Your task to perform on an android device: find snoozed emails in the gmail app Image 0: 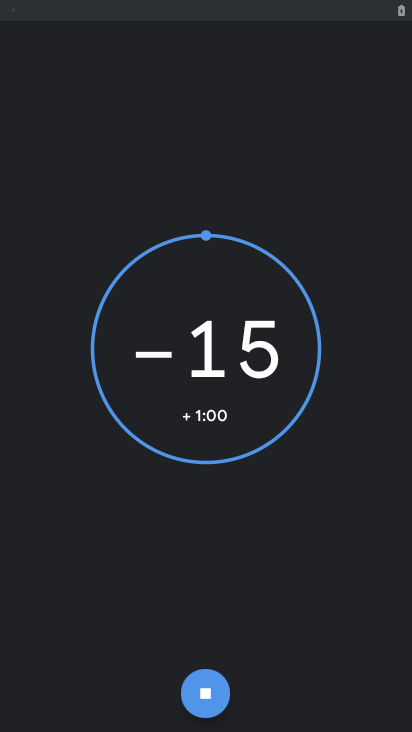
Step 0: click (211, 690)
Your task to perform on an android device: find snoozed emails in the gmail app Image 1: 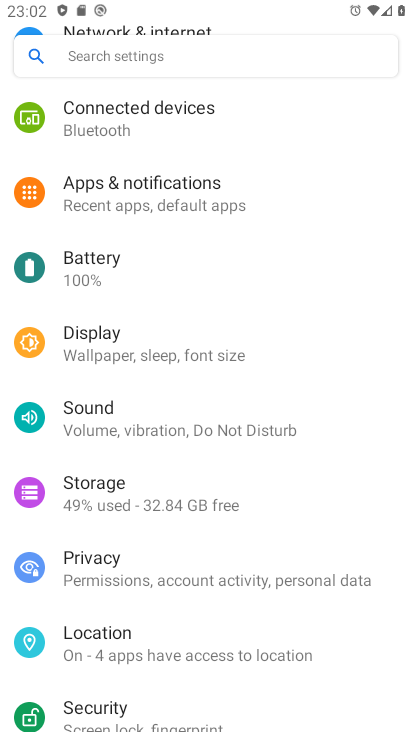
Step 1: press back button
Your task to perform on an android device: find snoozed emails in the gmail app Image 2: 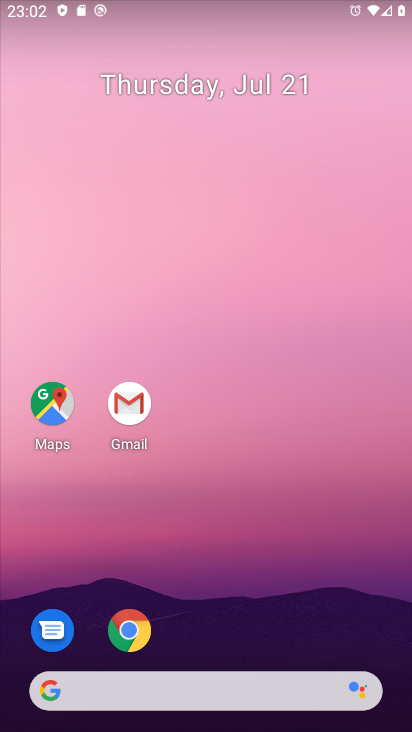
Step 2: drag from (218, 662) to (164, 121)
Your task to perform on an android device: find snoozed emails in the gmail app Image 3: 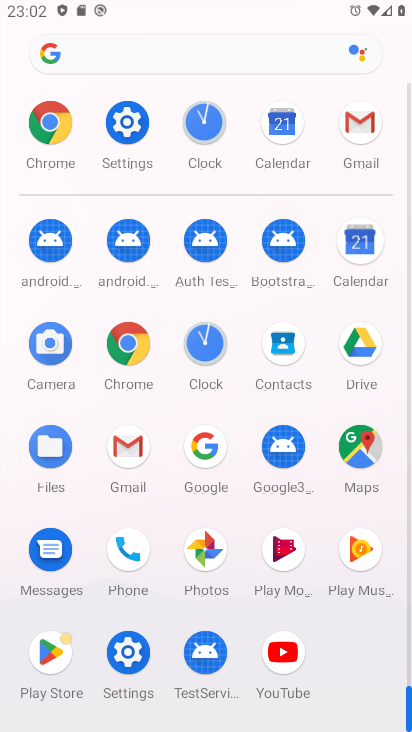
Step 3: click (133, 452)
Your task to perform on an android device: find snoozed emails in the gmail app Image 4: 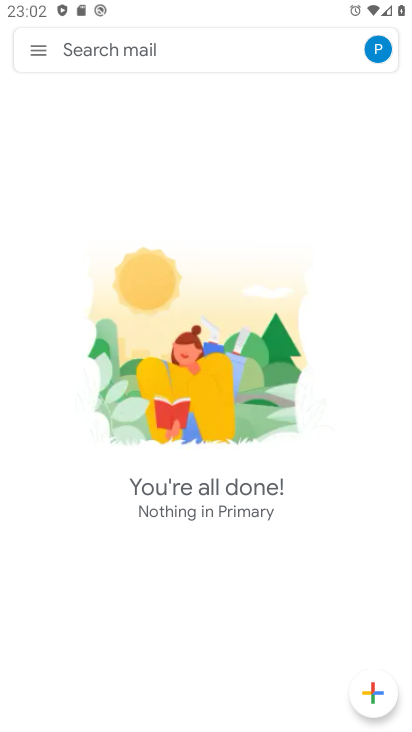
Step 4: click (26, 52)
Your task to perform on an android device: find snoozed emails in the gmail app Image 5: 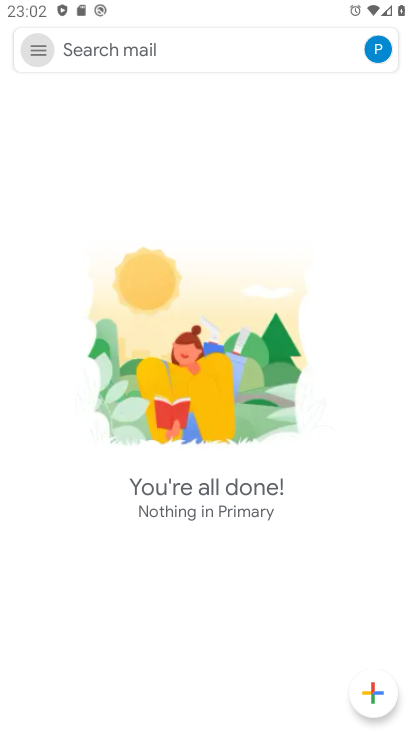
Step 5: click (28, 50)
Your task to perform on an android device: find snoozed emails in the gmail app Image 6: 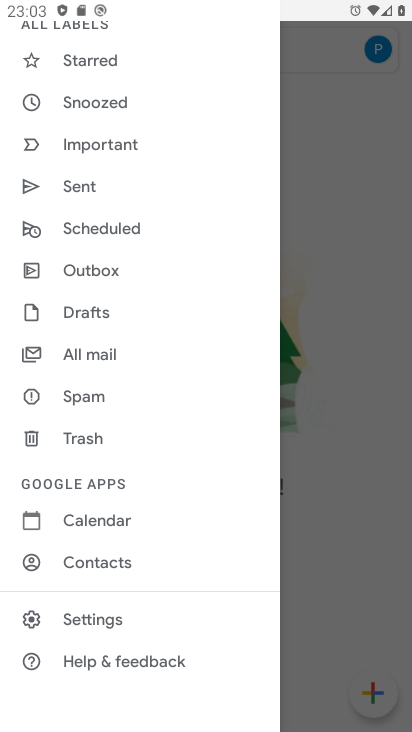
Step 6: click (87, 104)
Your task to perform on an android device: find snoozed emails in the gmail app Image 7: 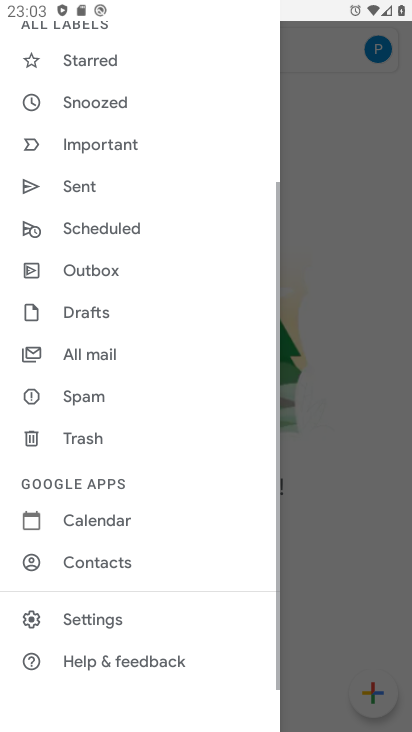
Step 7: click (90, 101)
Your task to perform on an android device: find snoozed emails in the gmail app Image 8: 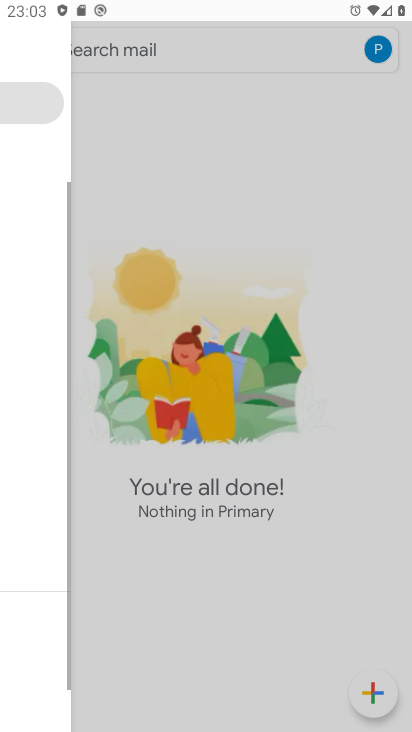
Step 8: click (93, 100)
Your task to perform on an android device: find snoozed emails in the gmail app Image 9: 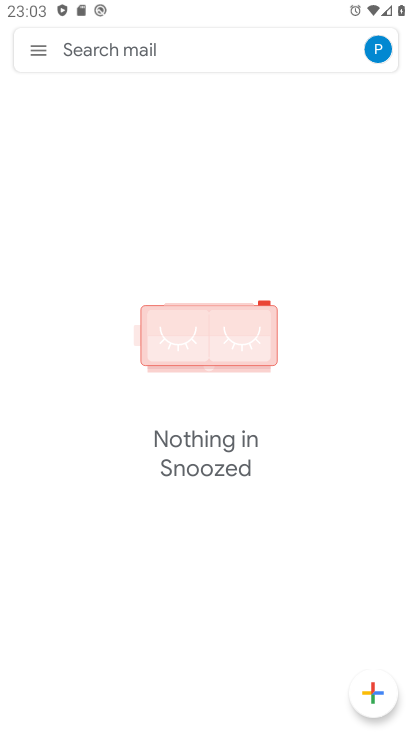
Step 9: task complete